Your task to perform on an android device: find which apps use the phone's location Image 0: 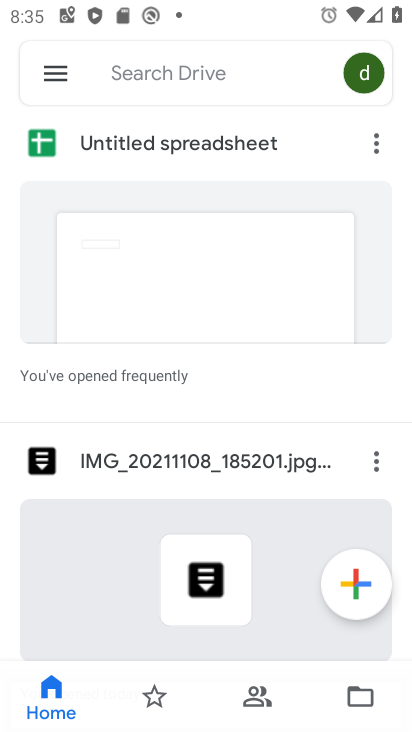
Step 0: press home button
Your task to perform on an android device: find which apps use the phone's location Image 1: 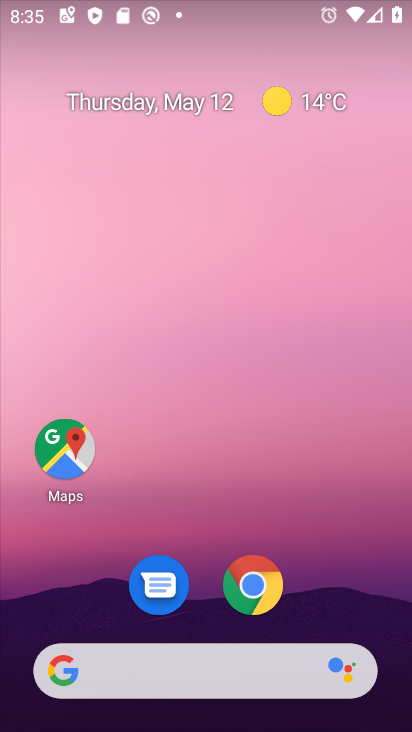
Step 1: drag from (208, 508) to (222, 70)
Your task to perform on an android device: find which apps use the phone's location Image 2: 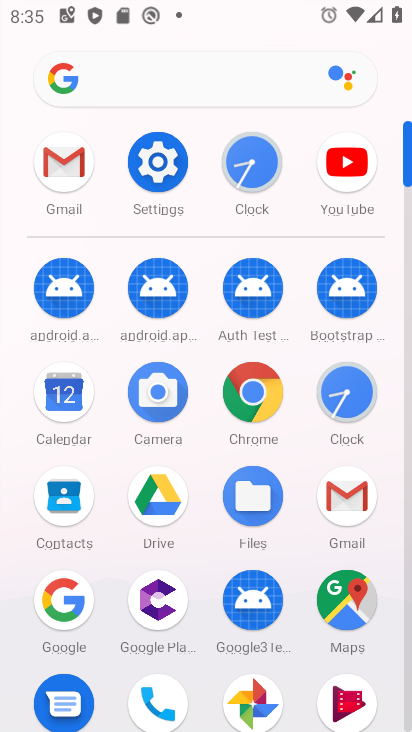
Step 2: click (171, 159)
Your task to perform on an android device: find which apps use the phone's location Image 3: 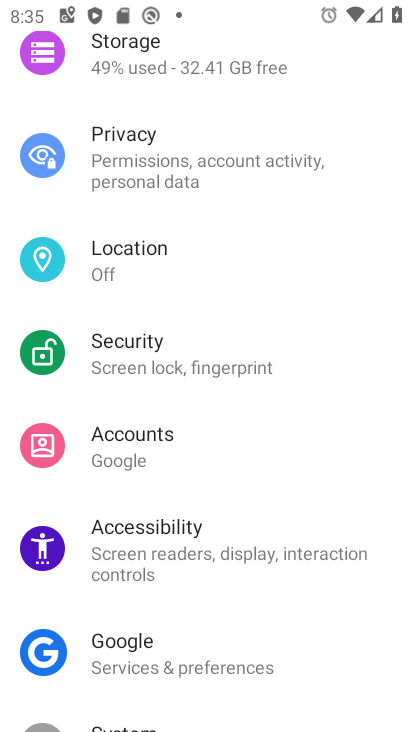
Step 3: click (193, 276)
Your task to perform on an android device: find which apps use the phone's location Image 4: 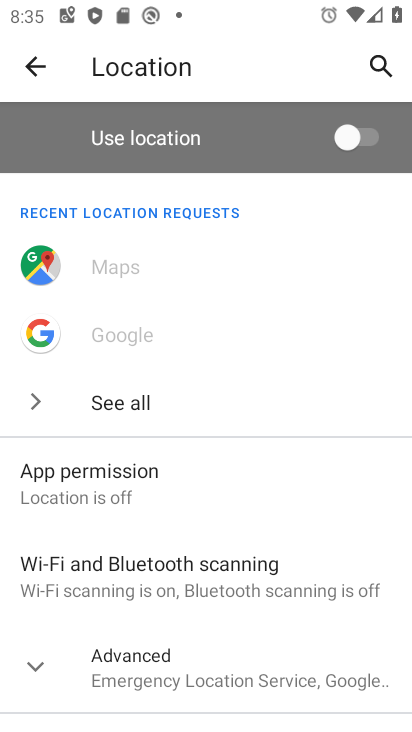
Step 4: click (183, 490)
Your task to perform on an android device: find which apps use the phone's location Image 5: 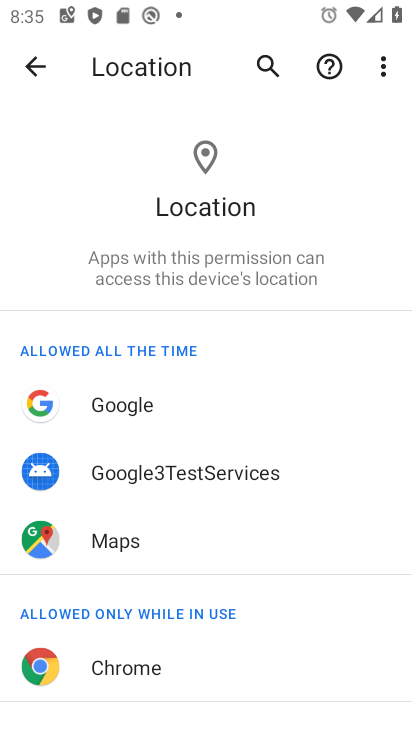
Step 5: task complete